Your task to perform on an android device: Open notification settings Image 0: 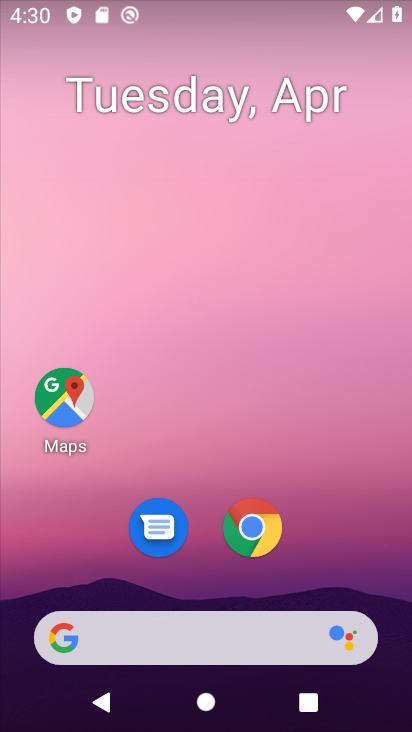
Step 0: drag from (225, 593) to (248, 81)
Your task to perform on an android device: Open notification settings Image 1: 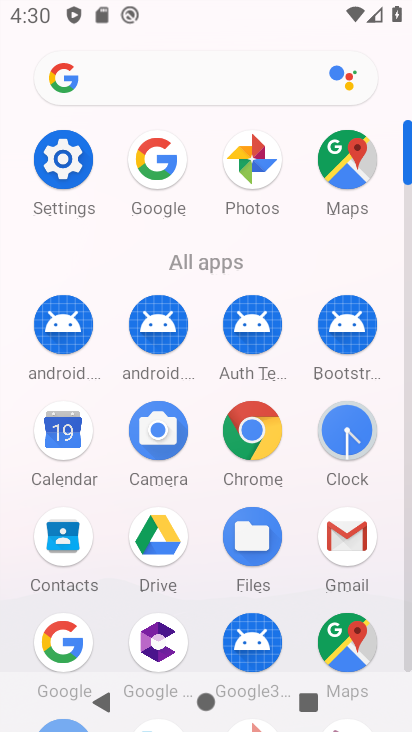
Step 1: click (76, 160)
Your task to perform on an android device: Open notification settings Image 2: 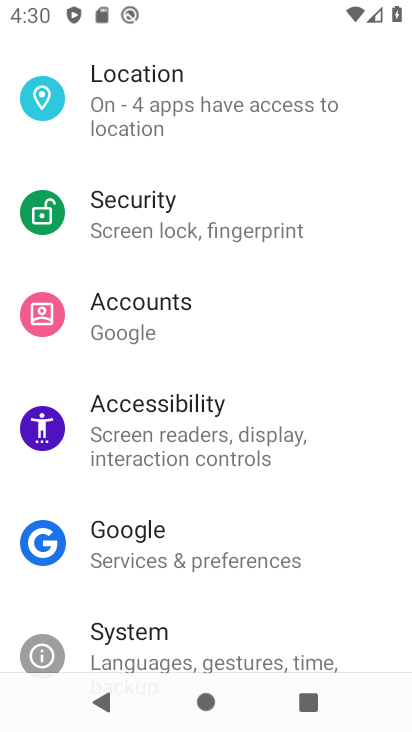
Step 2: click (257, 436)
Your task to perform on an android device: Open notification settings Image 3: 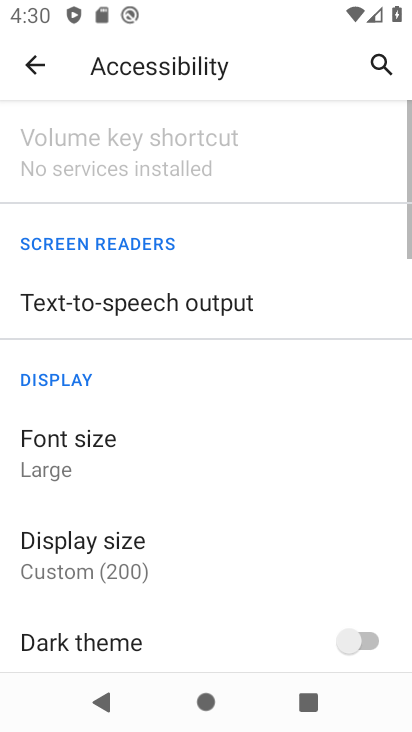
Step 3: task complete